Your task to perform on an android device: check android version Image 0: 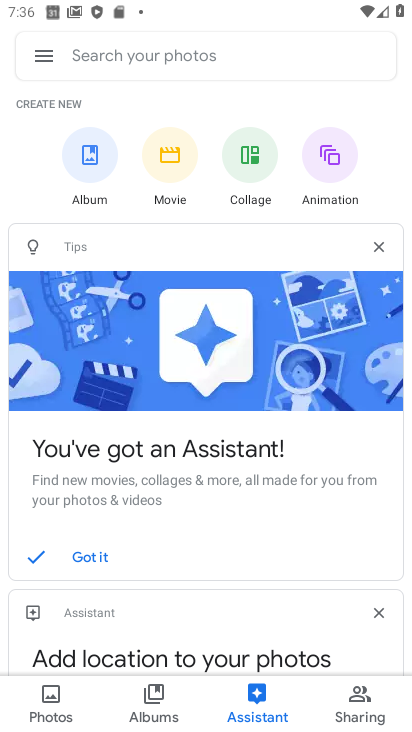
Step 0: press home button
Your task to perform on an android device: check android version Image 1: 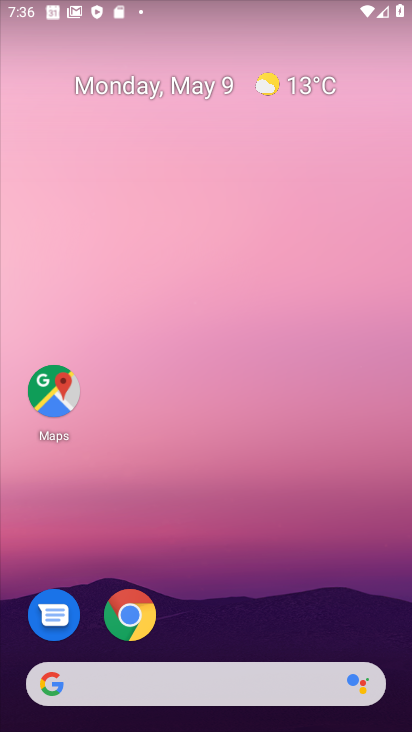
Step 1: drag from (222, 605) to (224, 163)
Your task to perform on an android device: check android version Image 2: 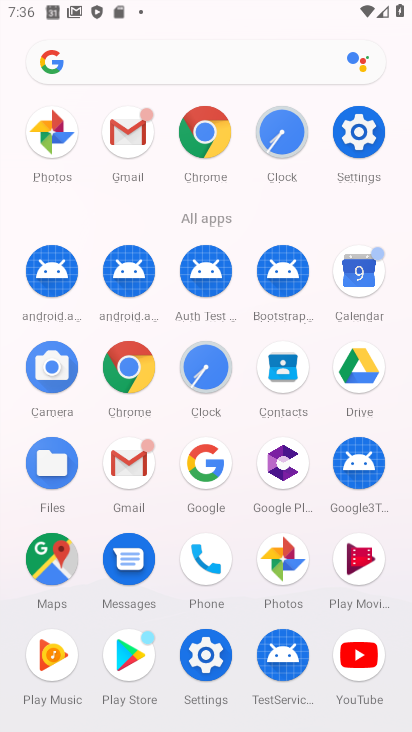
Step 2: click (354, 142)
Your task to perform on an android device: check android version Image 3: 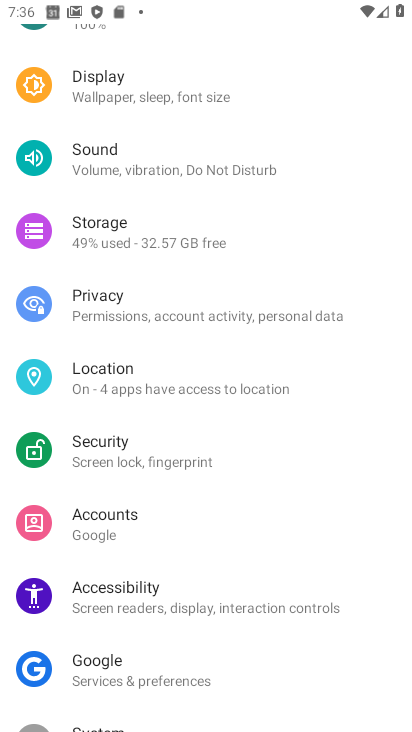
Step 3: drag from (172, 689) to (183, 94)
Your task to perform on an android device: check android version Image 4: 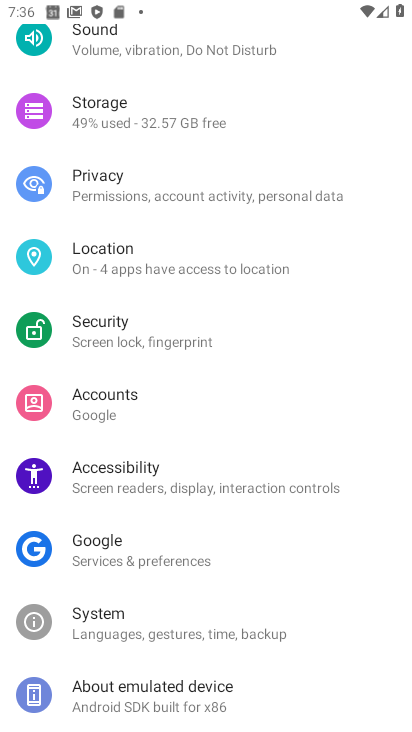
Step 4: click (83, 713)
Your task to perform on an android device: check android version Image 5: 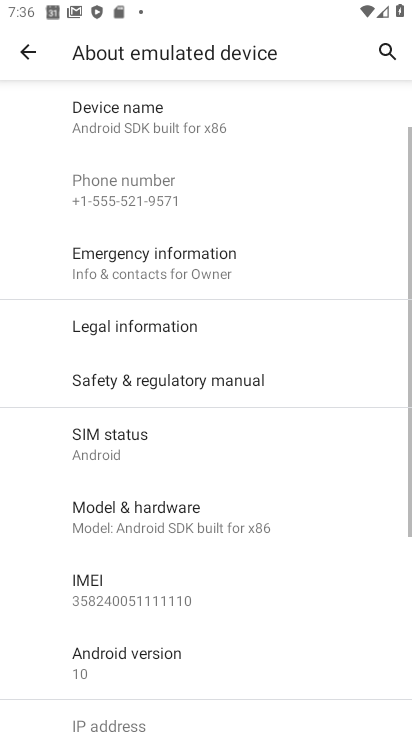
Step 5: click (140, 648)
Your task to perform on an android device: check android version Image 6: 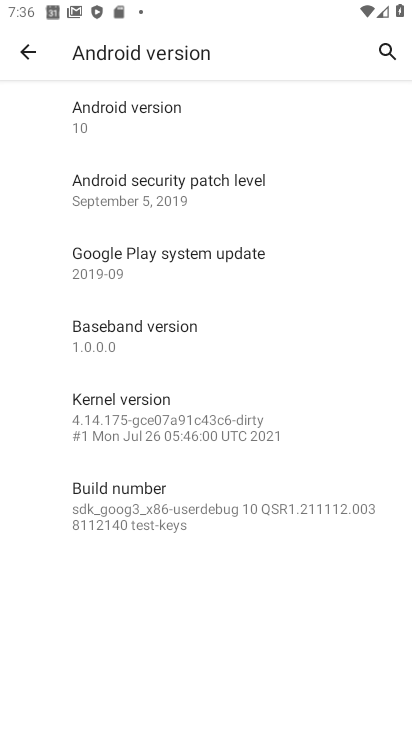
Step 6: click (170, 147)
Your task to perform on an android device: check android version Image 7: 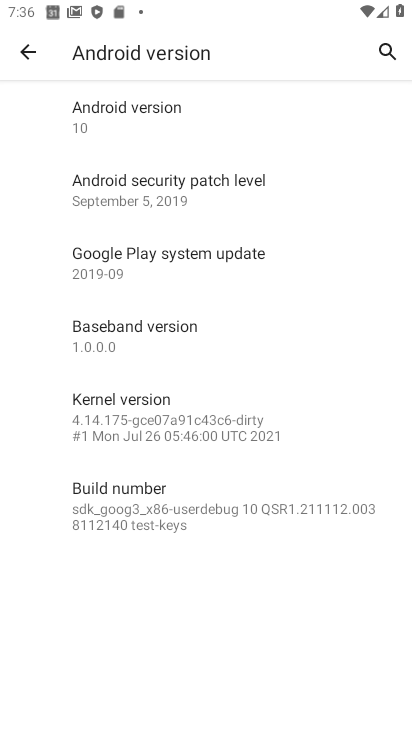
Step 7: task complete